Your task to perform on an android device: star an email in the gmail app Image 0: 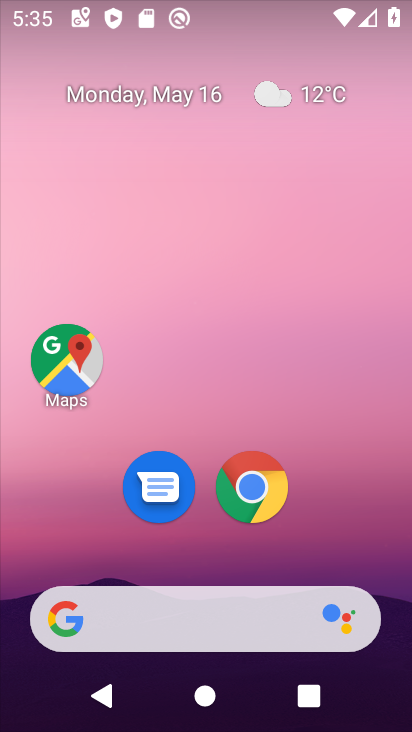
Step 0: drag from (341, 537) to (292, 44)
Your task to perform on an android device: star an email in the gmail app Image 1: 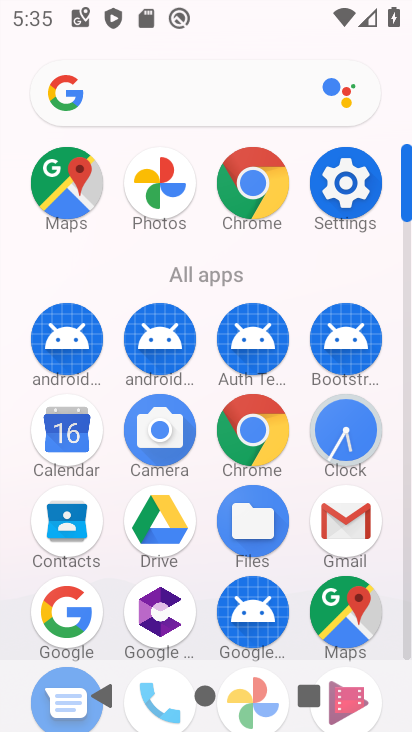
Step 1: click (355, 521)
Your task to perform on an android device: star an email in the gmail app Image 2: 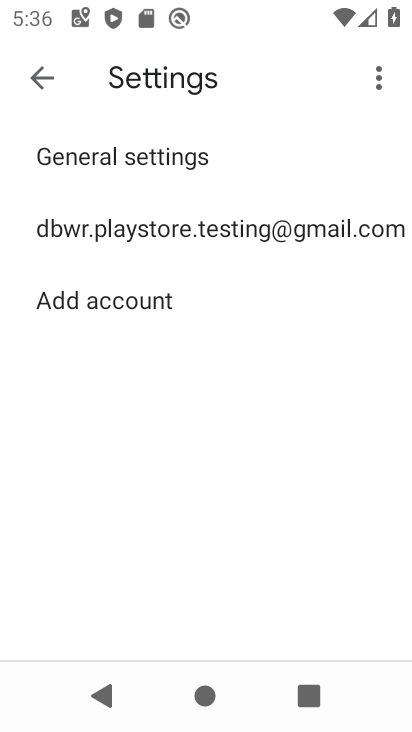
Step 2: click (33, 72)
Your task to perform on an android device: star an email in the gmail app Image 3: 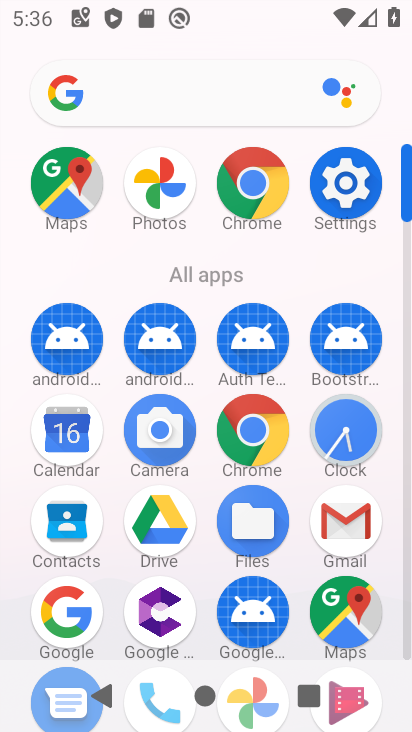
Step 3: click (357, 515)
Your task to perform on an android device: star an email in the gmail app Image 4: 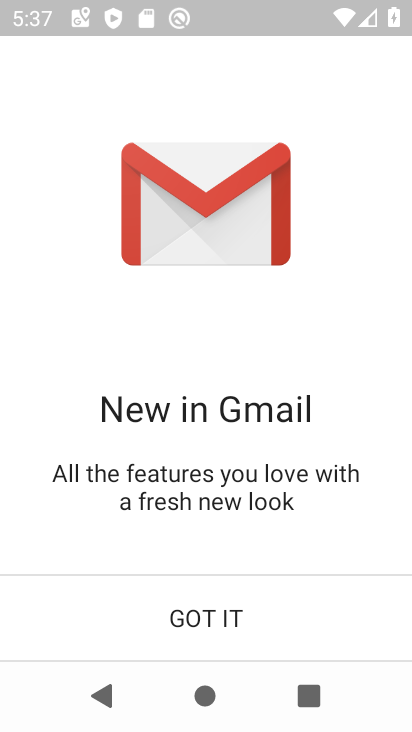
Step 4: click (237, 613)
Your task to perform on an android device: star an email in the gmail app Image 5: 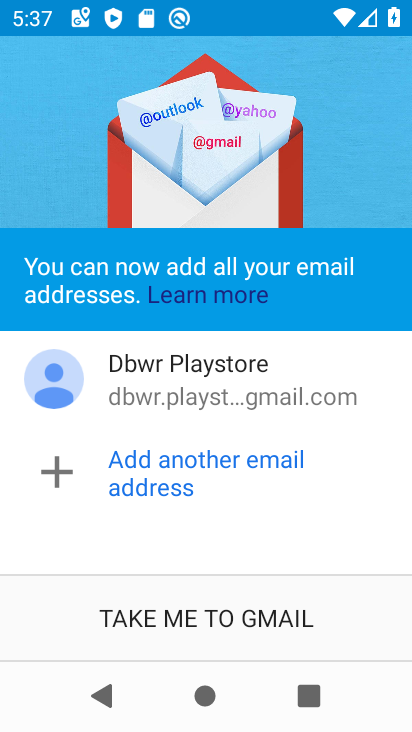
Step 5: click (248, 621)
Your task to perform on an android device: star an email in the gmail app Image 6: 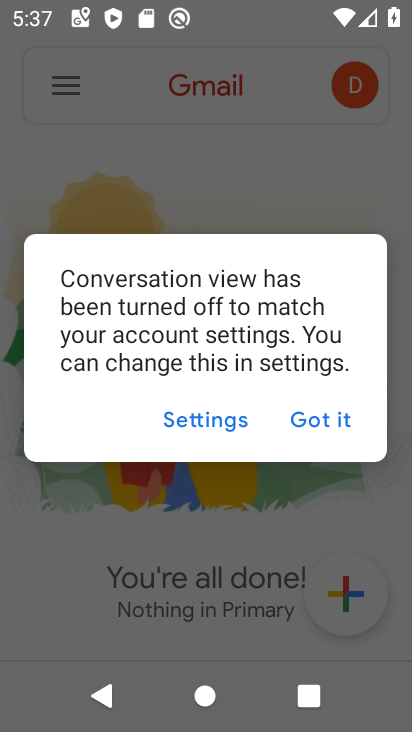
Step 6: click (318, 418)
Your task to perform on an android device: star an email in the gmail app Image 7: 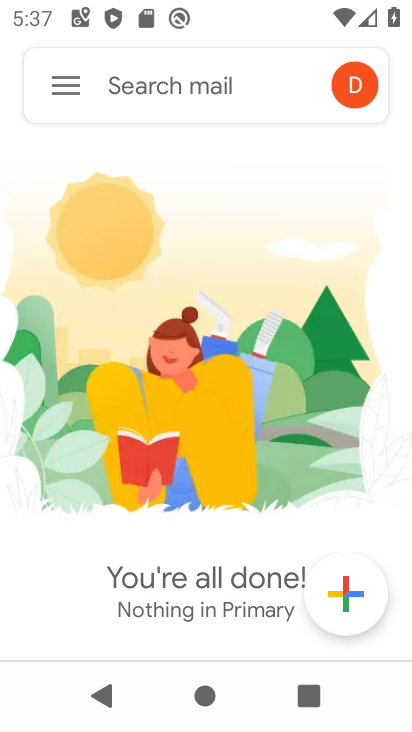
Step 7: click (60, 80)
Your task to perform on an android device: star an email in the gmail app Image 8: 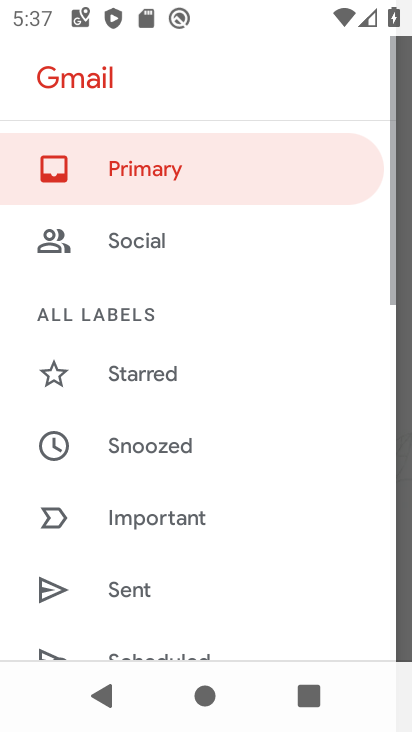
Step 8: drag from (183, 564) to (203, 121)
Your task to perform on an android device: star an email in the gmail app Image 9: 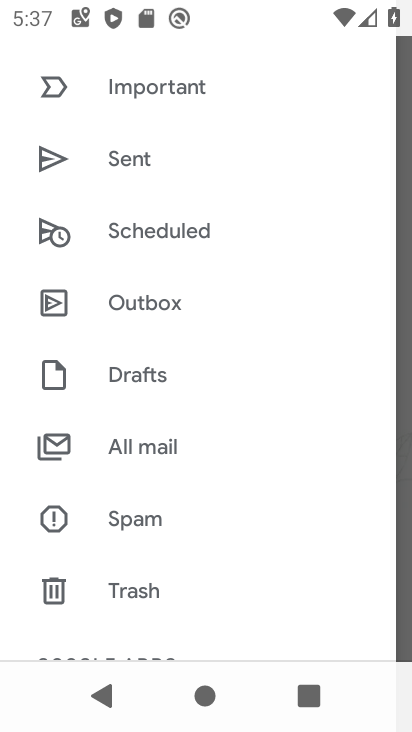
Step 9: click (155, 438)
Your task to perform on an android device: star an email in the gmail app Image 10: 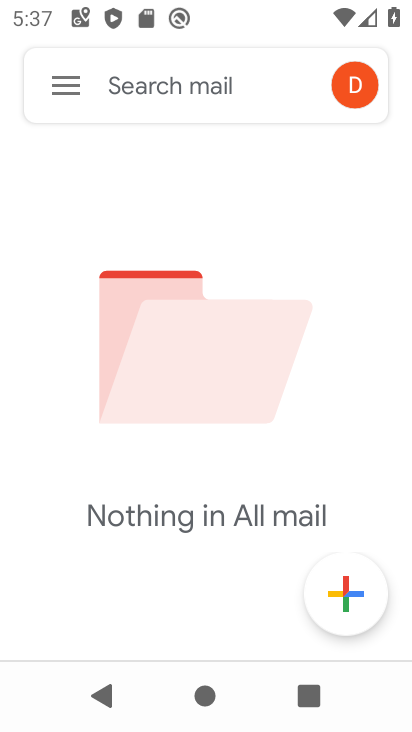
Step 10: task complete